Your task to perform on an android device: What's on my calendar tomorrow? Image 0: 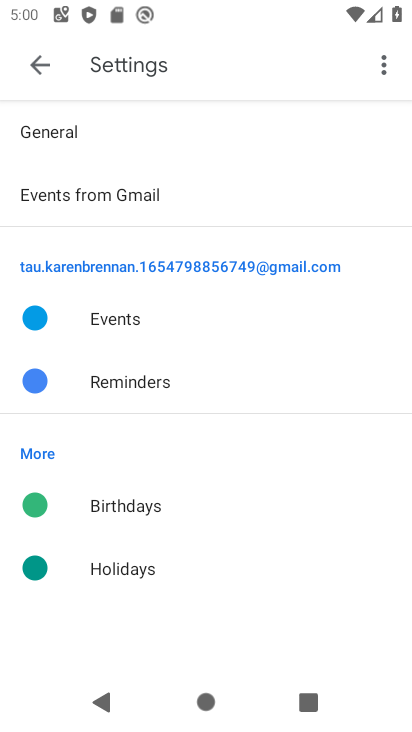
Step 0: press home button
Your task to perform on an android device: What's on my calendar tomorrow? Image 1: 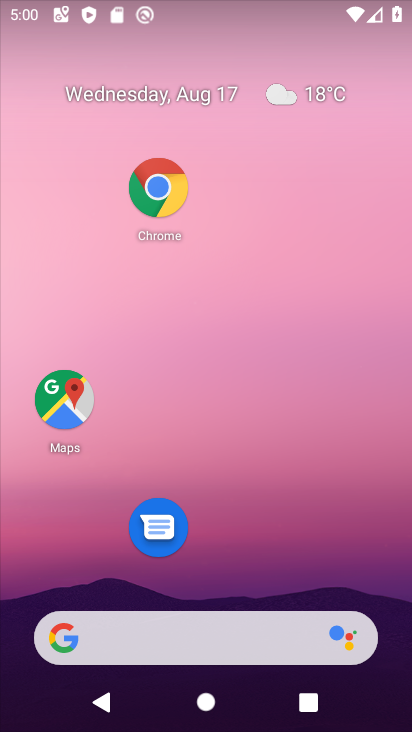
Step 1: click (136, 98)
Your task to perform on an android device: What's on my calendar tomorrow? Image 2: 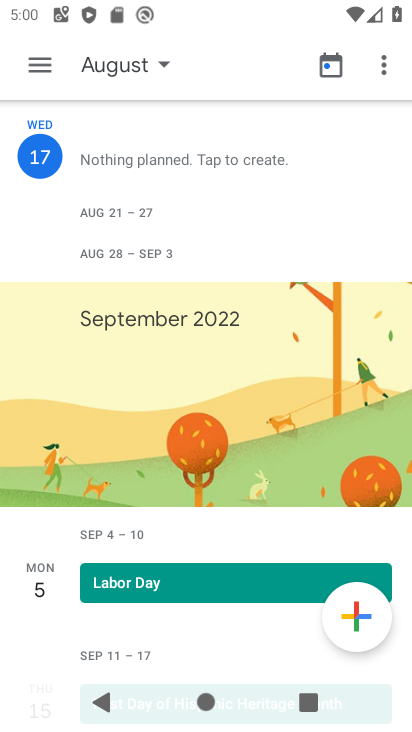
Step 2: click (144, 64)
Your task to perform on an android device: What's on my calendar tomorrow? Image 3: 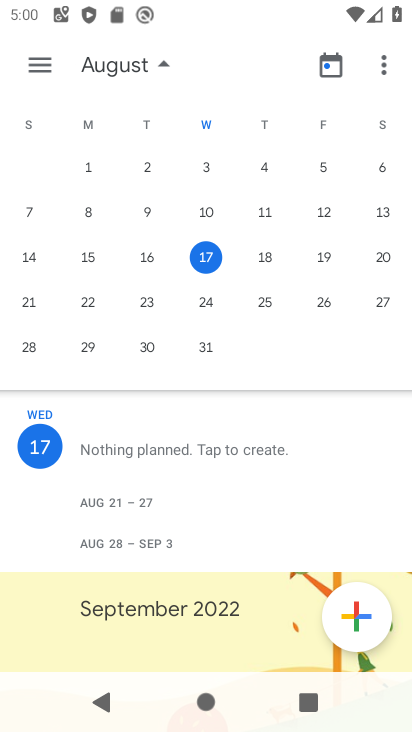
Step 3: click (261, 265)
Your task to perform on an android device: What's on my calendar tomorrow? Image 4: 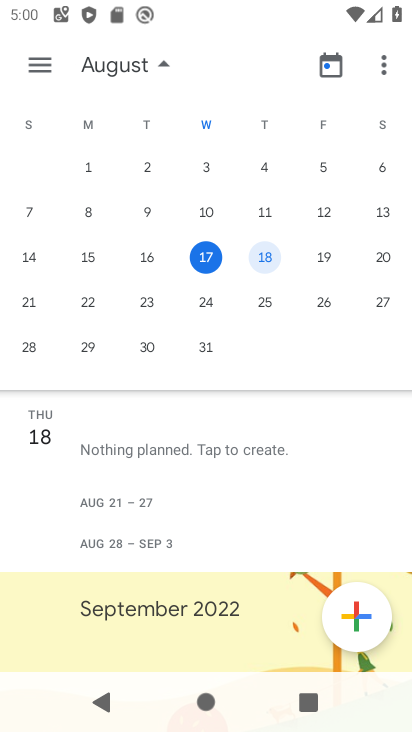
Step 4: task complete